Your task to perform on an android device: turn off notifications in google photos Image 0: 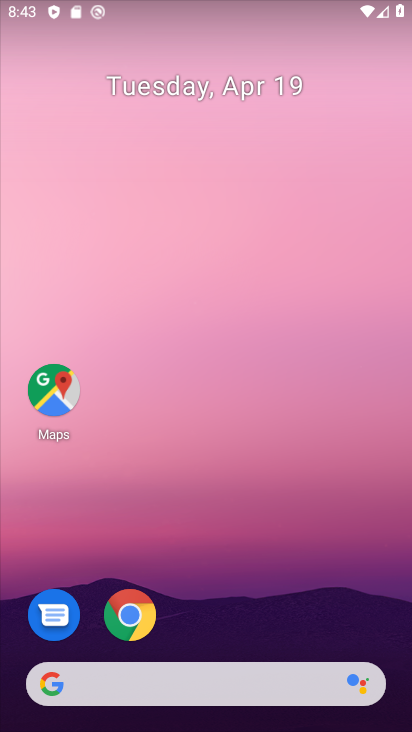
Step 0: drag from (232, 647) to (245, 32)
Your task to perform on an android device: turn off notifications in google photos Image 1: 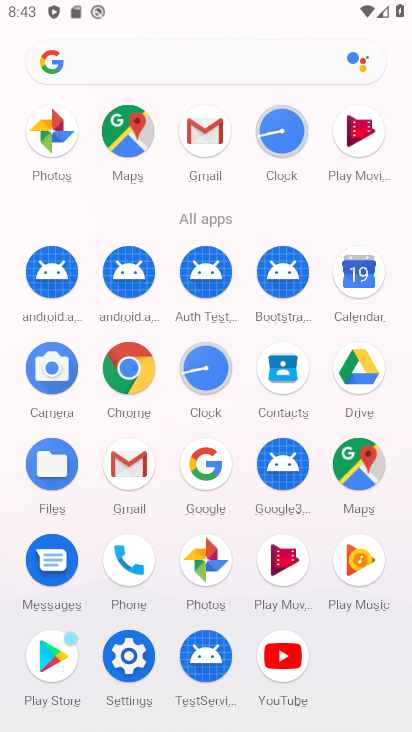
Step 1: click (31, 143)
Your task to perform on an android device: turn off notifications in google photos Image 2: 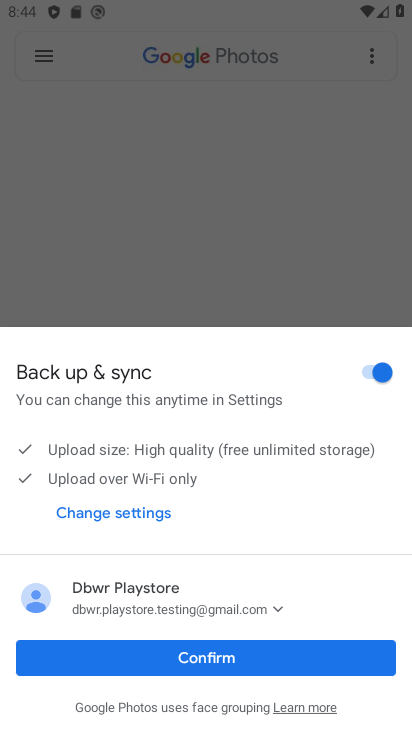
Step 2: click (41, 67)
Your task to perform on an android device: turn off notifications in google photos Image 3: 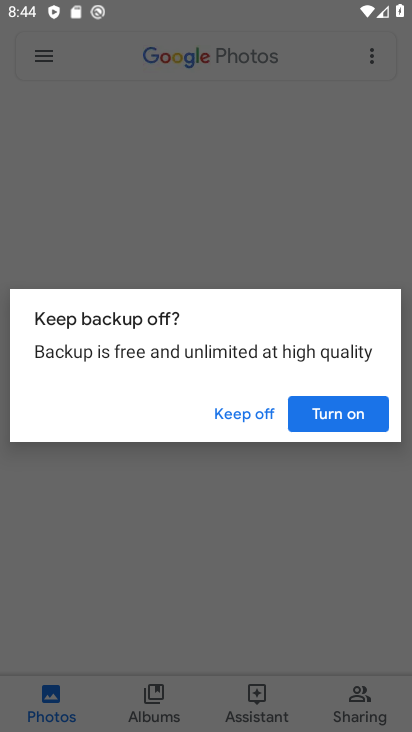
Step 3: click (41, 67)
Your task to perform on an android device: turn off notifications in google photos Image 4: 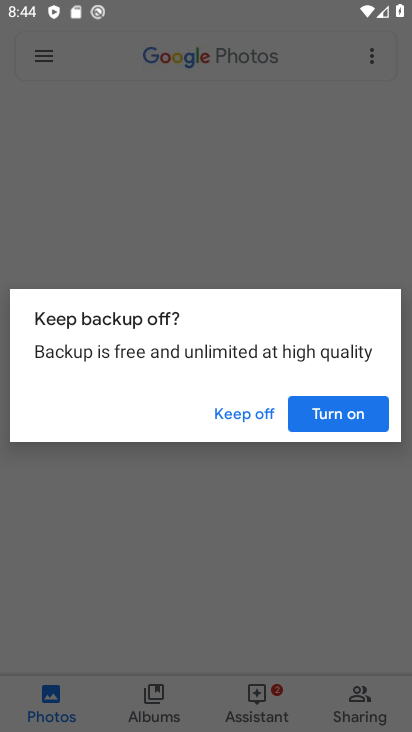
Step 4: click (243, 418)
Your task to perform on an android device: turn off notifications in google photos Image 5: 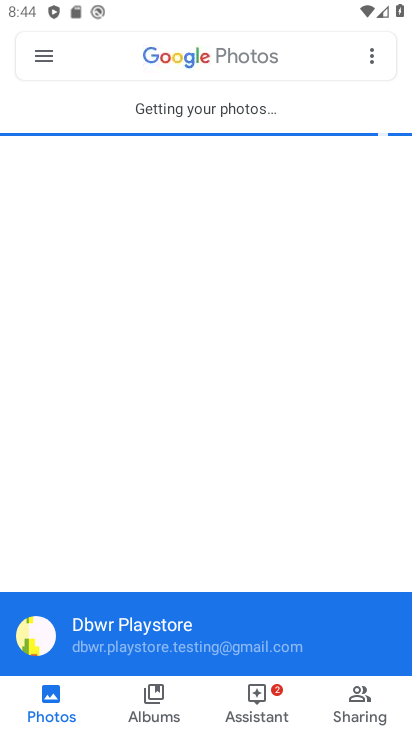
Step 5: click (57, 61)
Your task to perform on an android device: turn off notifications in google photos Image 6: 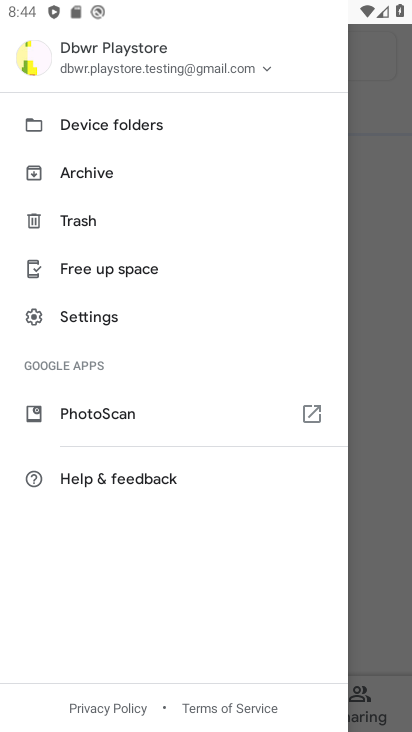
Step 6: click (83, 327)
Your task to perform on an android device: turn off notifications in google photos Image 7: 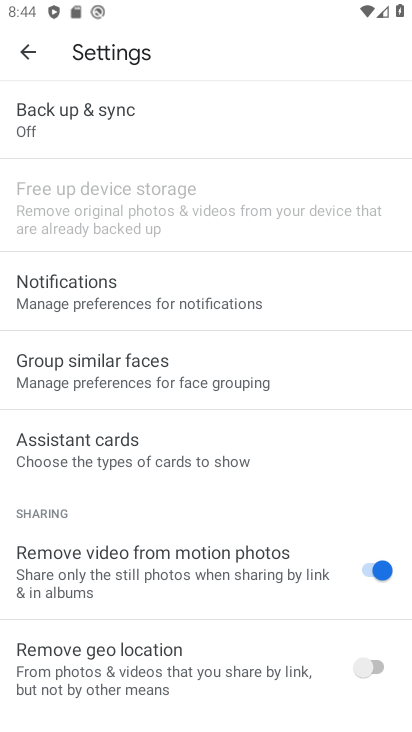
Step 7: click (120, 302)
Your task to perform on an android device: turn off notifications in google photos Image 8: 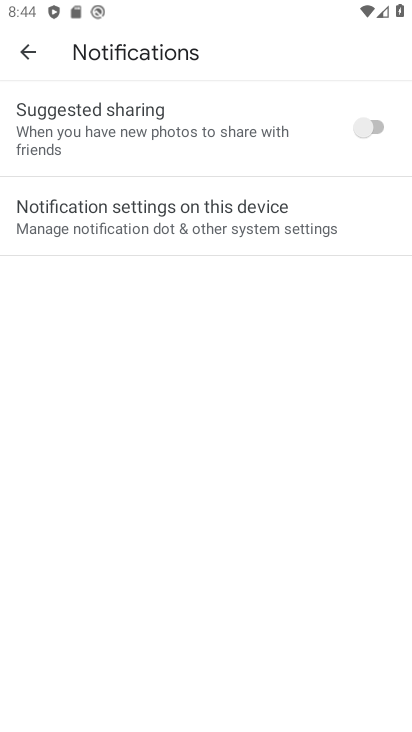
Step 8: click (184, 213)
Your task to perform on an android device: turn off notifications in google photos Image 9: 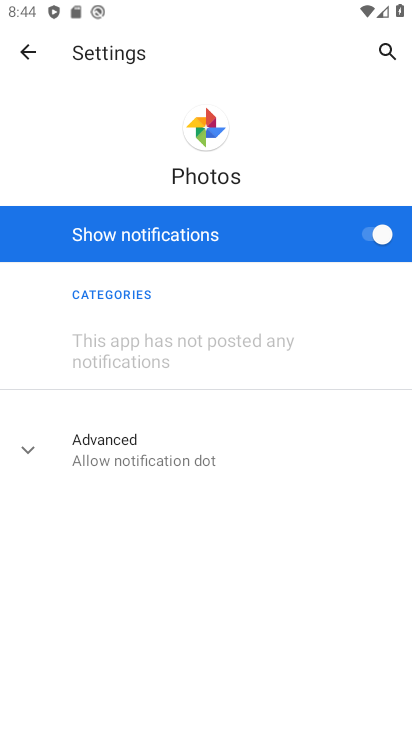
Step 9: click (364, 241)
Your task to perform on an android device: turn off notifications in google photos Image 10: 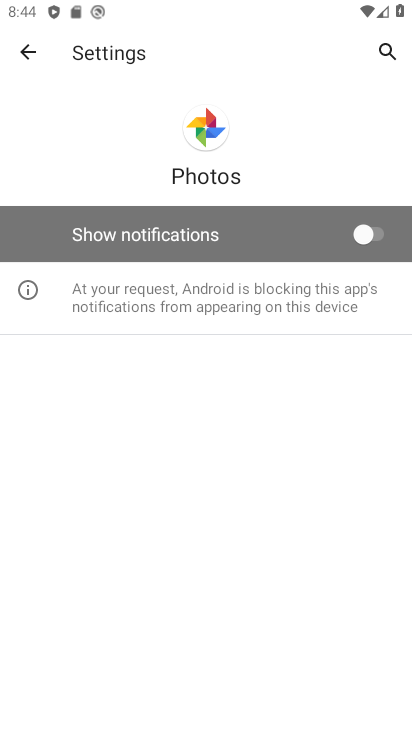
Step 10: task complete